Your task to perform on an android device: Show me the alarms in the clock app Image 0: 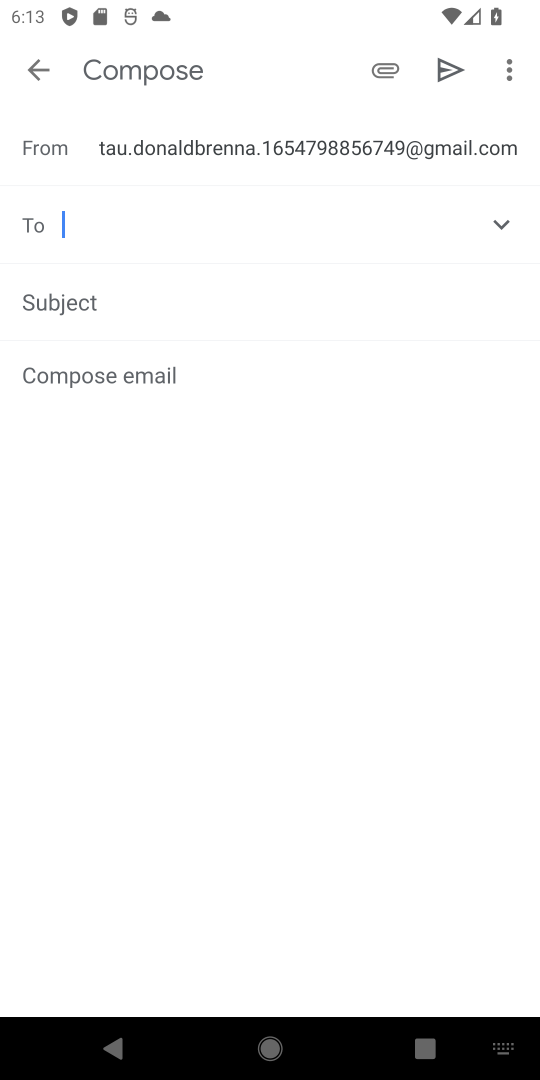
Step 0: press back button
Your task to perform on an android device: Show me the alarms in the clock app Image 1: 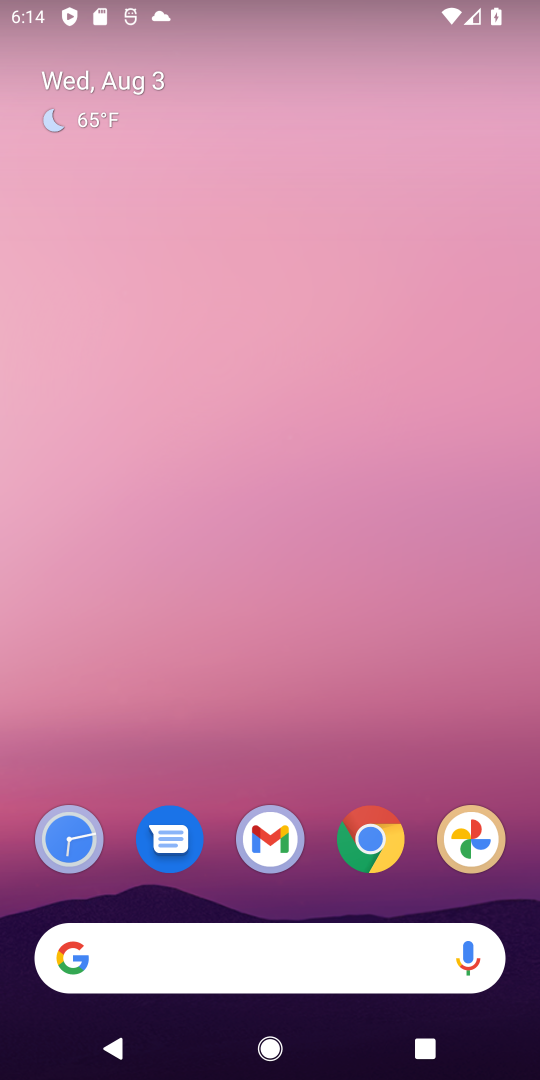
Step 1: click (33, 843)
Your task to perform on an android device: Show me the alarms in the clock app Image 2: 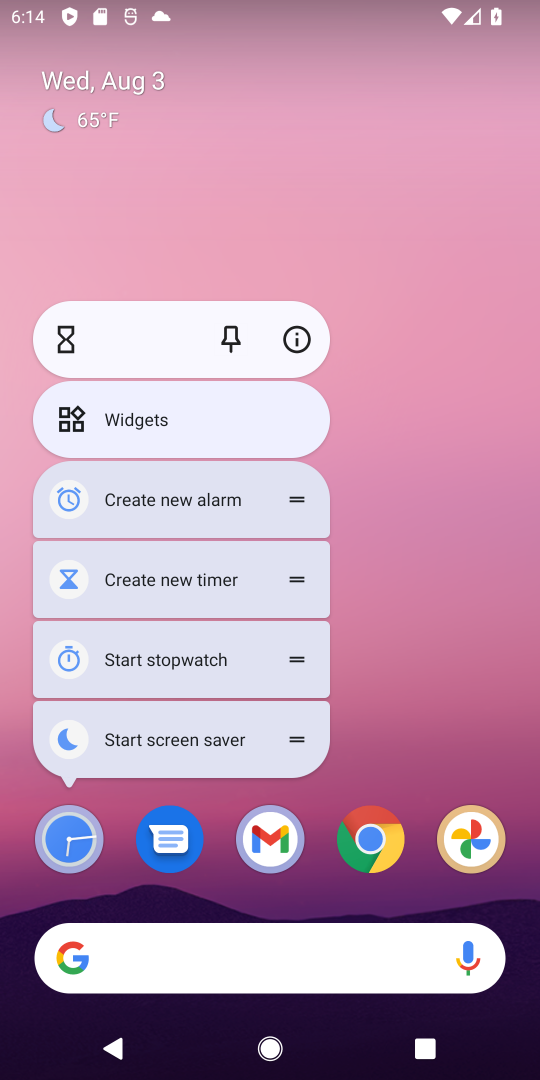
Step 2: click (70, 846)
Your task to perform on an android device: Show me the alarms in the clock app Image 3: 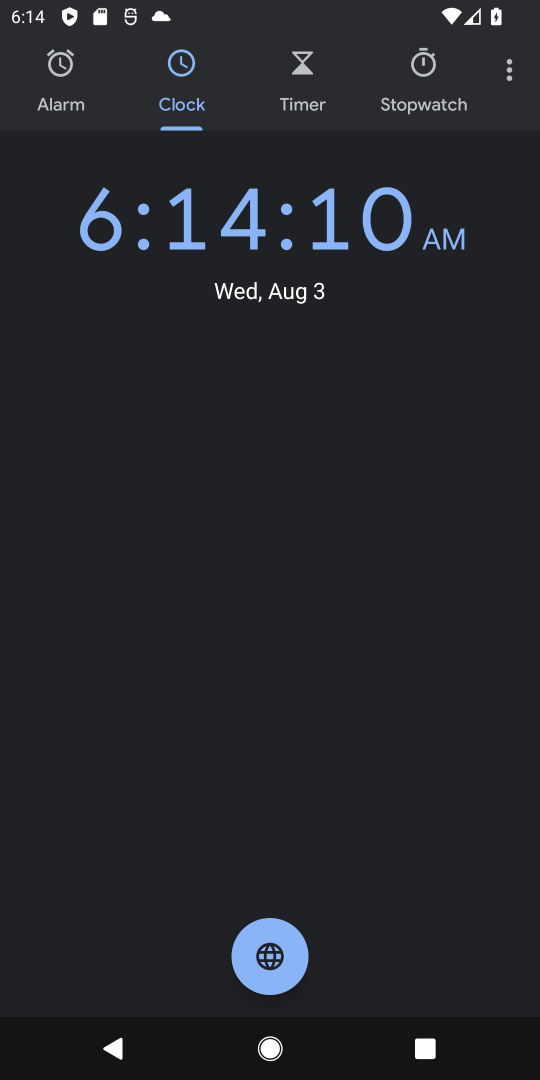
Step 3: click (40, 83)
Your task to perform on an android device: Show me the alarms in the clock app Image 4: 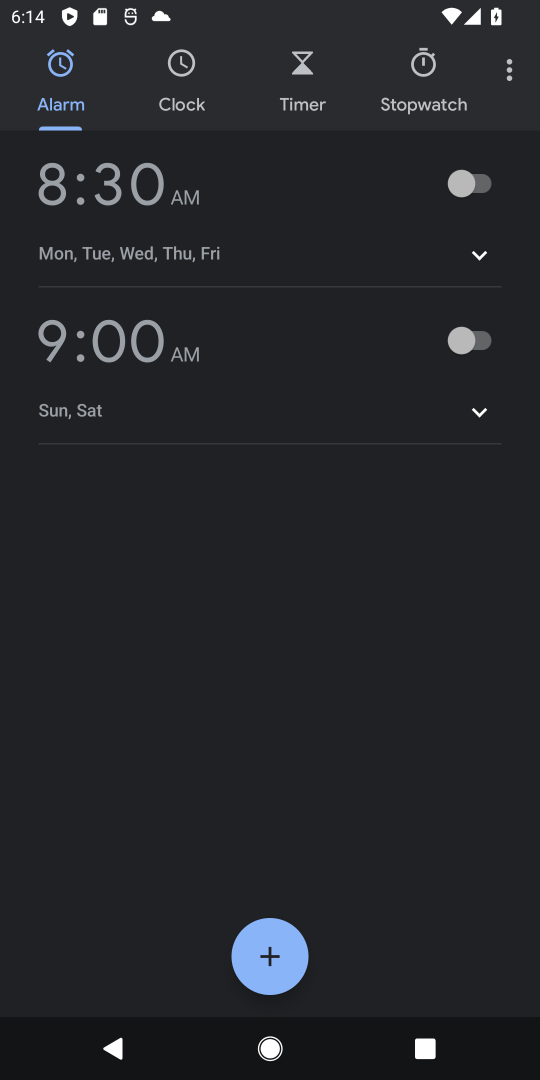
Step 4: task complete